Your task to perform on an android device: turn off data saver in the chrome app Image 0: 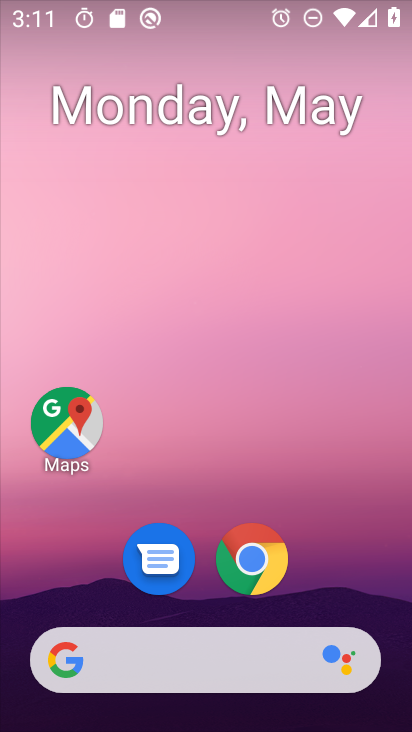
Step 0: drag from (208, 615) to (258, 215)
Your task to perform on an android device: turn off data saver in the chrome app Image 1: 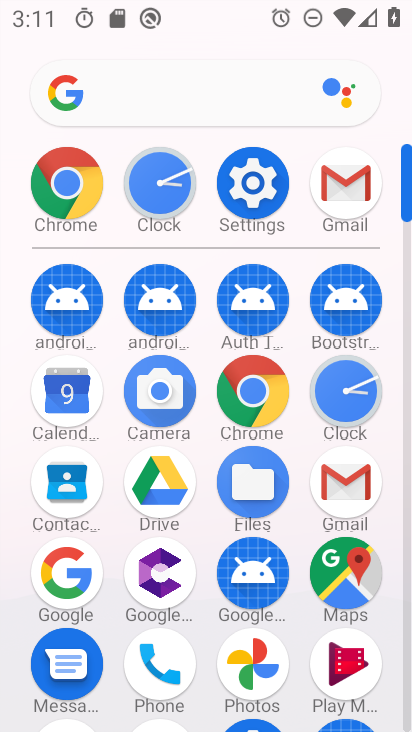
Step 1: drag from (195, 708) to (205, 243)
Your task to perform on an android device: turn off data saver in the chrome app Image 2: 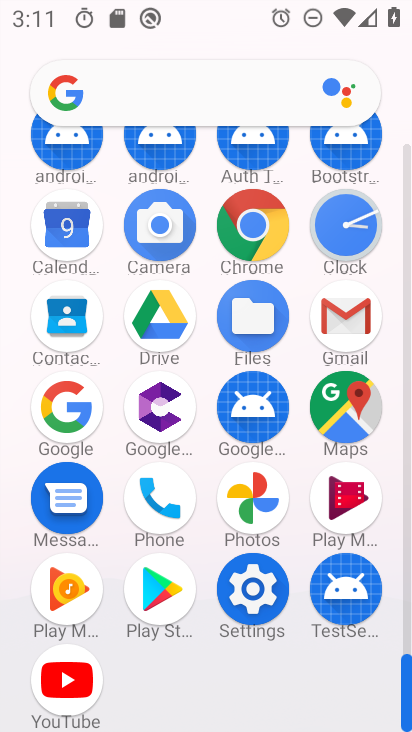
Step 2: drag from (195, 681) to (209, 468)
Your task to perform on an android device: turn off data saver in the chrome app Image 3: 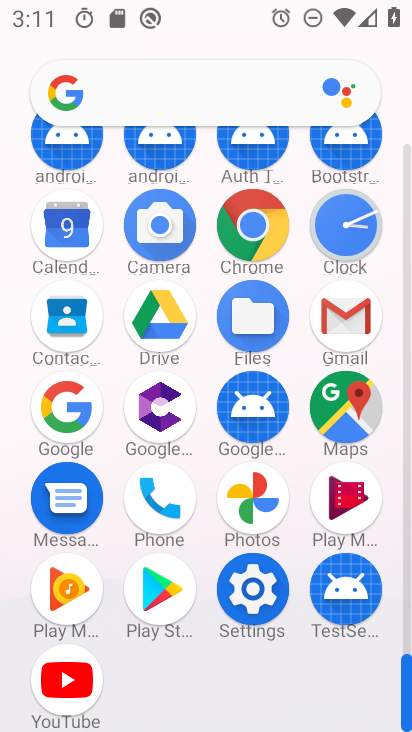
Step 3: click (255, 236)
Your task to perform on an android device: turn off data saver in the chrome app Image 4: 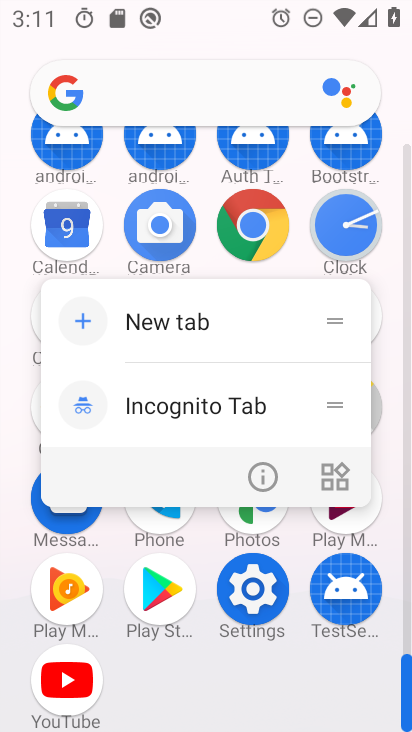
Step 4: click (262, 468)
Your task to perform on an android device: turn off data saver in the chrome app Image 5: 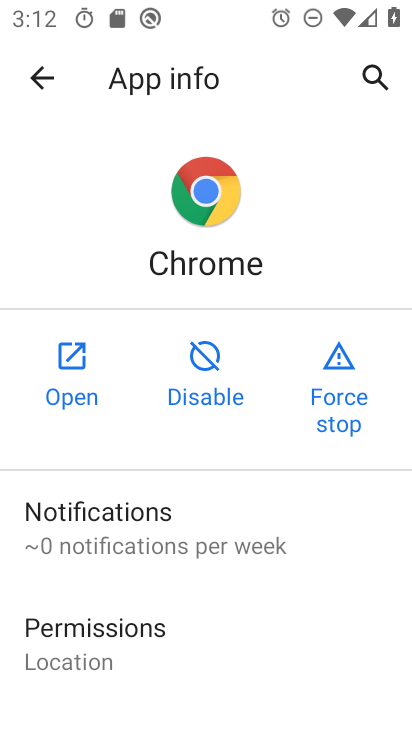
Step 5: click (80, 365)
Your task to perform on an android device: turn off data saver in the chrome app Image 6: 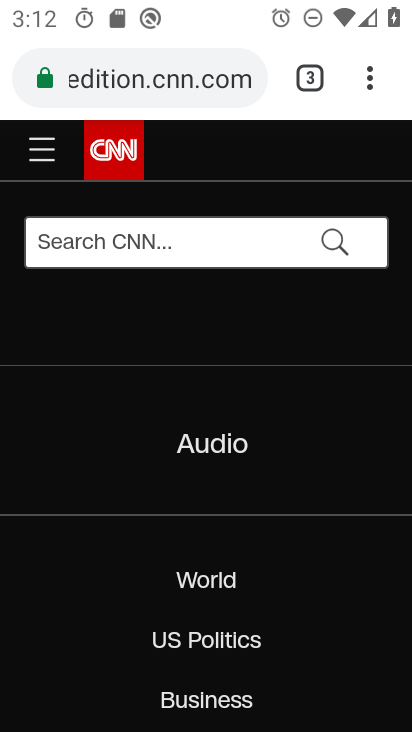
Step 6: drag from (186, 653) to (309, 275)
Your task to perform on an android device: turn off data saver in the chrome app Image 7: 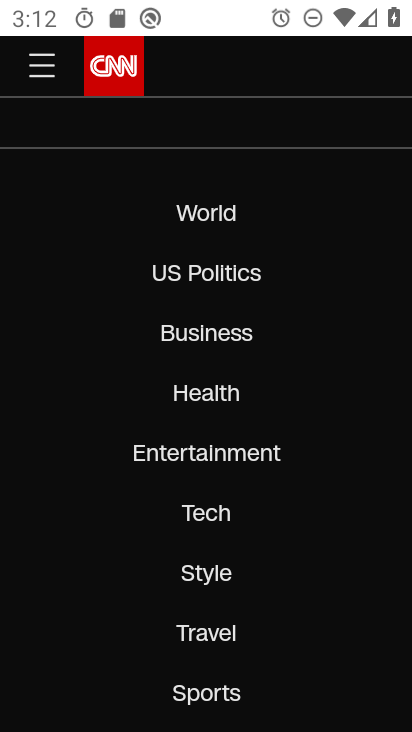
Step 7: drag from (326, 208) to (269, 706)
Your task to perform on an android device: turn off data saver in the chrome app Image 8: 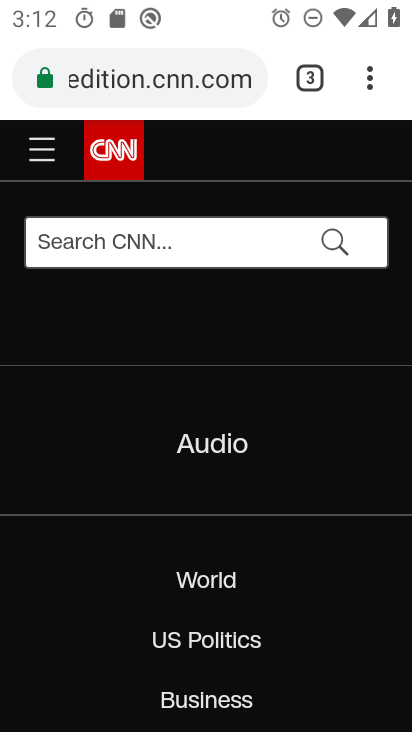
Step 8: drag from (276, 671) to (291, 434)
Your task to perform on an android device: turn off data saver in the chrome app Image 9: 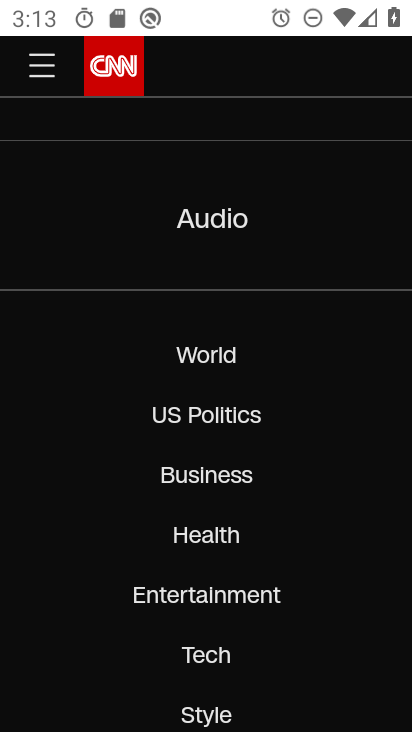
Step 9: drag from (240, 632) to (339, 265)
Your task to perform on an android device: turn off data saver in the chrome app Image 10: 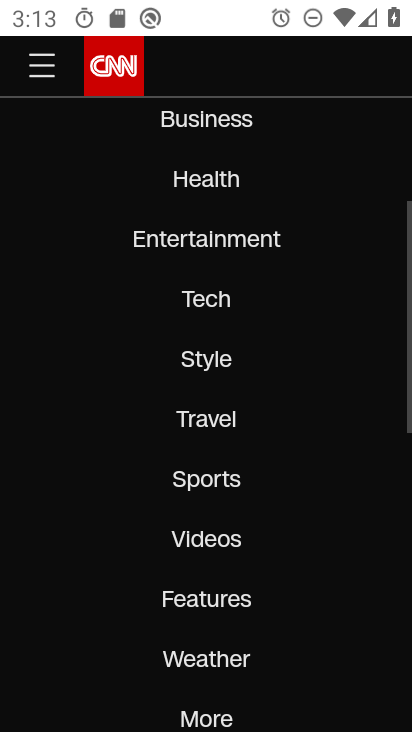
Step 10: drag from (327, 163) to (286, 721)
Your task to perform on an android device: turn off data saver in the chrome app Image 11: 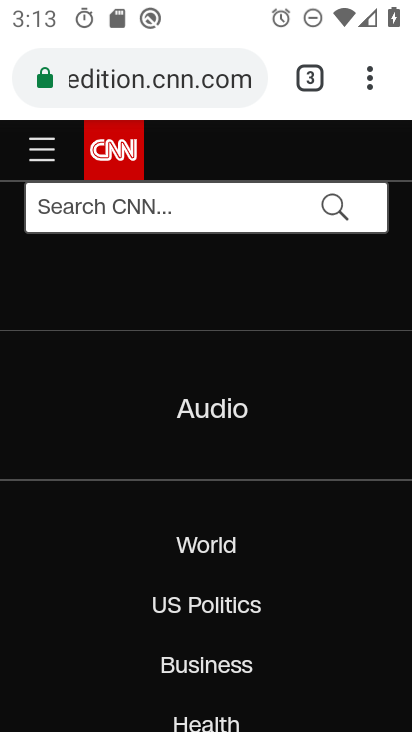
Step 11: click (360, 70)
Your task to perform on an android device: turn off data saver in the chrome app Image 12: 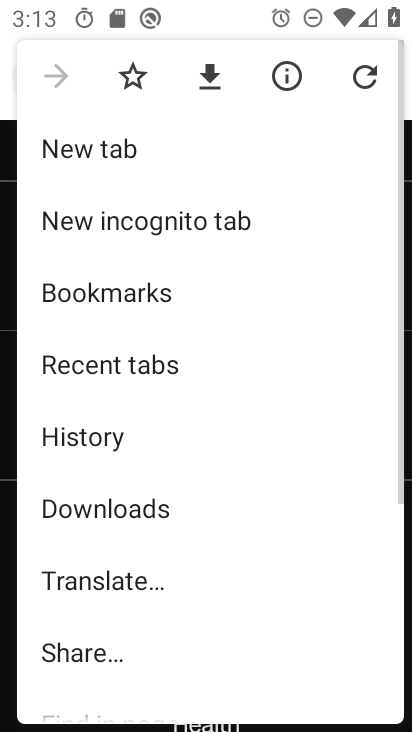
Step 12: drag from (123, 673) to (274, 134)
Your task to perform on an android device: turn off data saver in the chrome app Image 13: 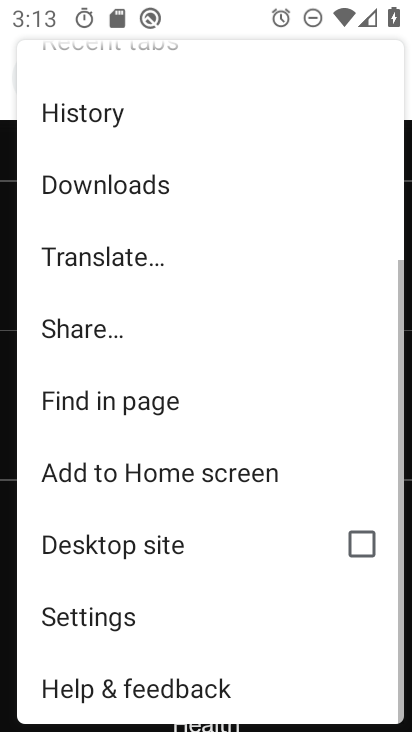
Step 13: click (137, 657)
Your task to perform on an android device: turn off data saver in the chrome app Image 14: 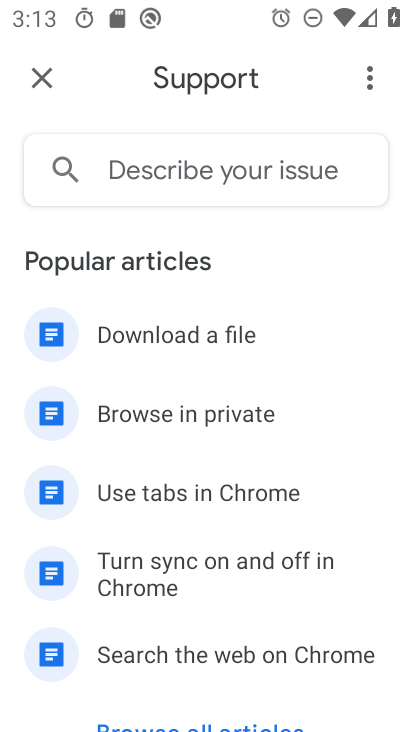
Step 14: press back button
Your task to perform on an android device: turn off data saver in the chrome app Image 15: 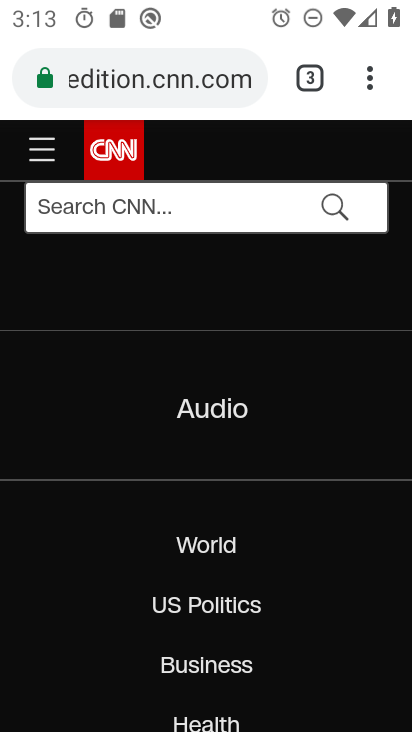
Step 15: click (357, 82)
Your task to perform on an android device: turn off data saver in the chrome app Image 16: 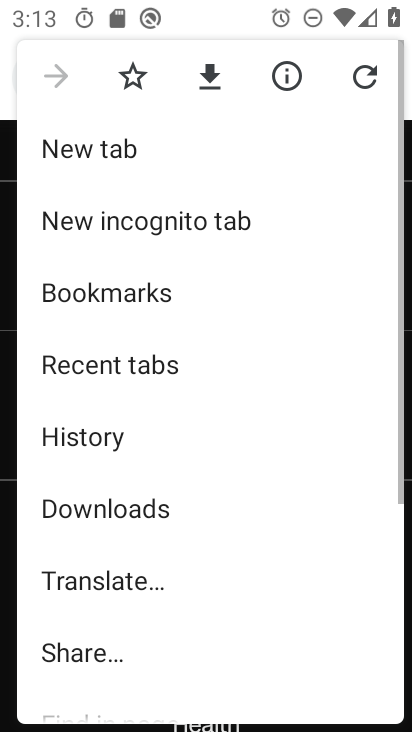
Step 16: drag from (224, 591) to (326, 107)
Your task to perform on an android device: turn off data saver in the chrome app Image 17: 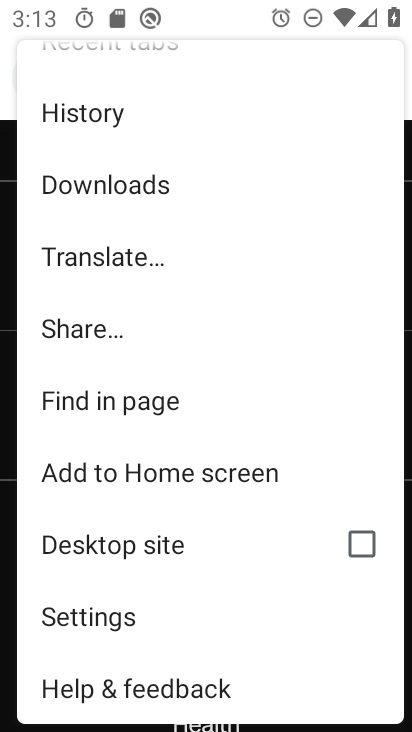
Step 17: click (133, 617)
Your task to perform on an android device: turn off data saver in the chrome app Image 18: 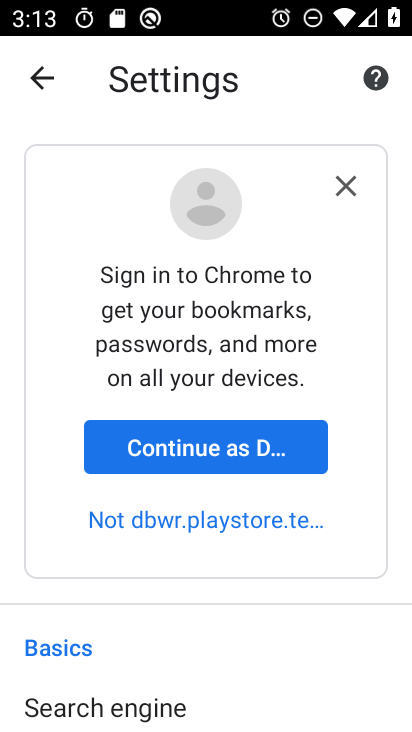
Step 18: drag from (216, 602) to (360, 80)
Your task to perform on an android device: turn off data saver in the chrome app Image 19: 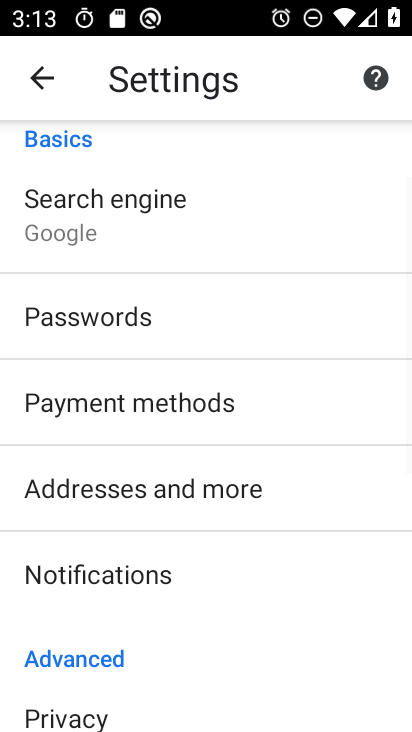
Step 19: drag from (159, 589) to (345, 14)
Your task to perform on an android device: turn off data saver in the chrome app Image 20: 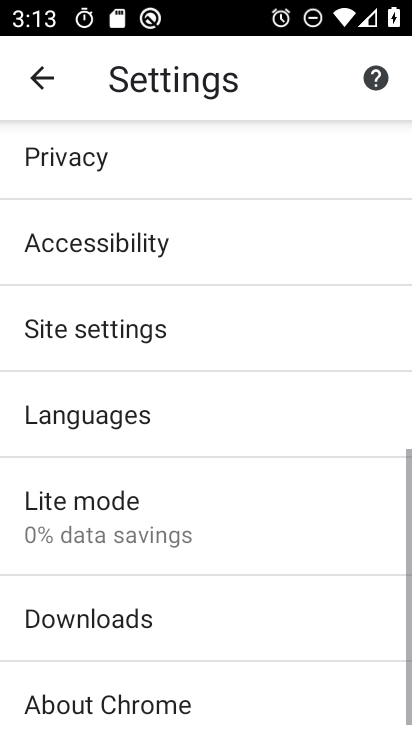
Step 20: drag from (187, 549) to (339, 164)
Your task to perform on an android device: turn off data saver in the chrome app Image 21: 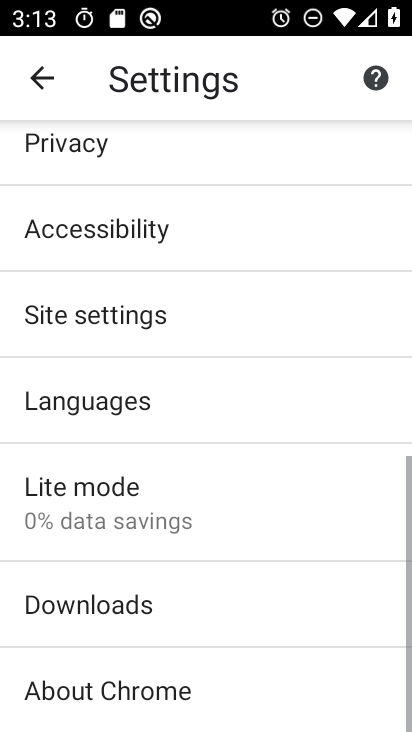
Step 21: drag from (179, 615) to (304, 273)
Your task to perform on an android device: turn off data saver in the chrome app Image 22: 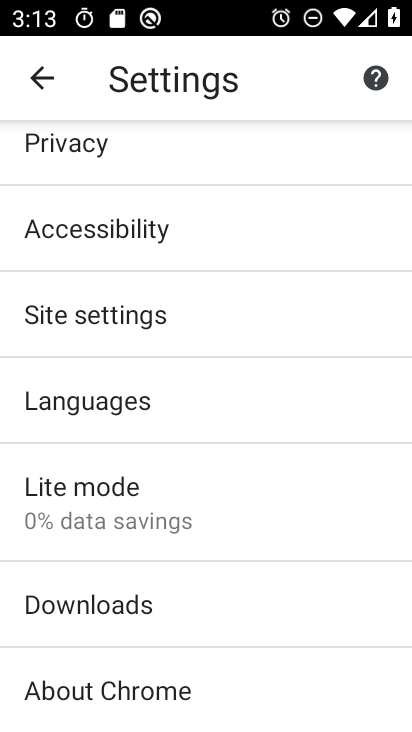
Step 22: click (124, 498)
Your task to perform on an android device: turn off data saver in the chrome app Image 23: 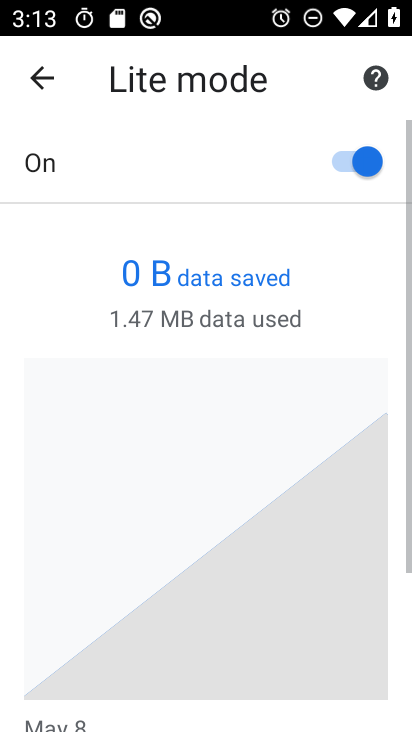
Step 23: click (337, 167)
Your task to perform on an android device: turn off data saver in the chrome app Image 24: 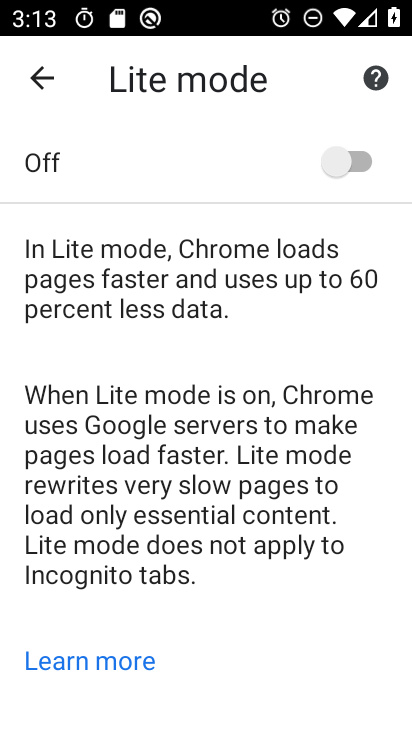
Step 24: task complete